Your task to perform on an android device: set the stopwatch Image 0: 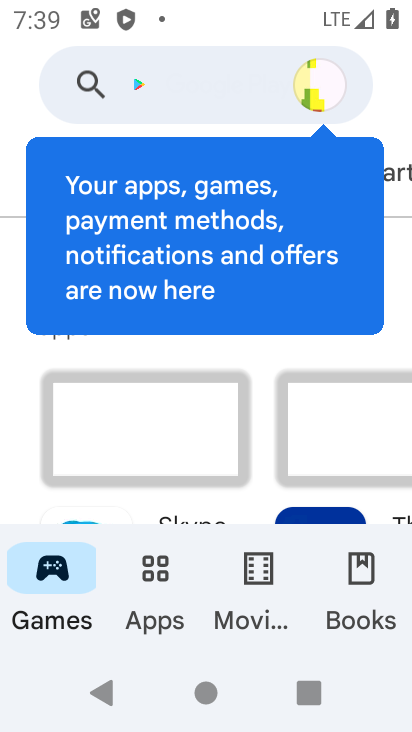
Step 0: press home button
Your task to perform on an android device: set the stopwatch Image 1: 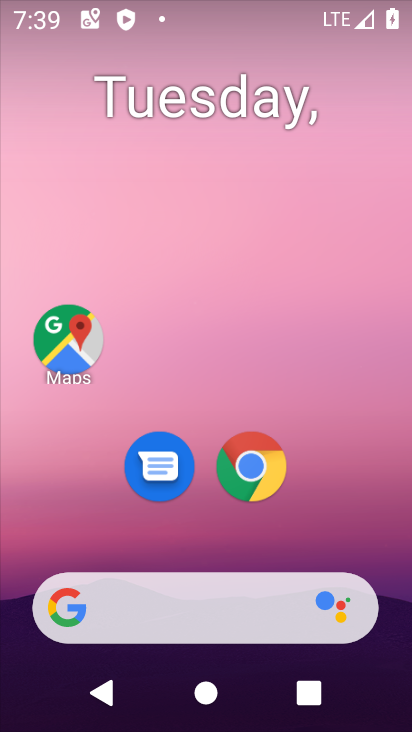
Step 1: drag from (334, 534) to (219, 44)
Your task to perform on an android device: set the stopwatch Image 2: 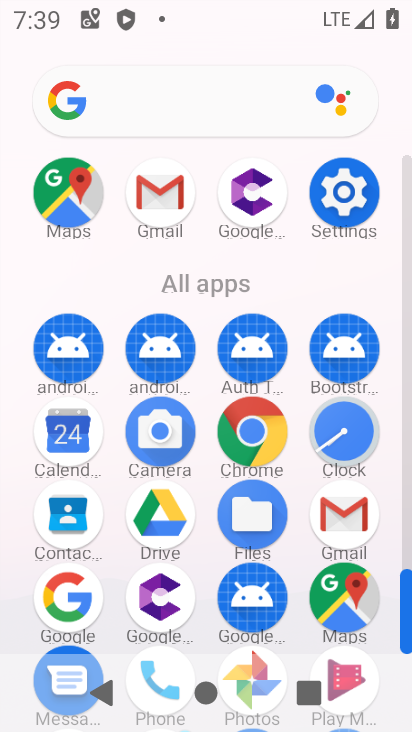
Step 2: click (343, 424)
Your task to perform on an android device: set the stopwatch Image 3: 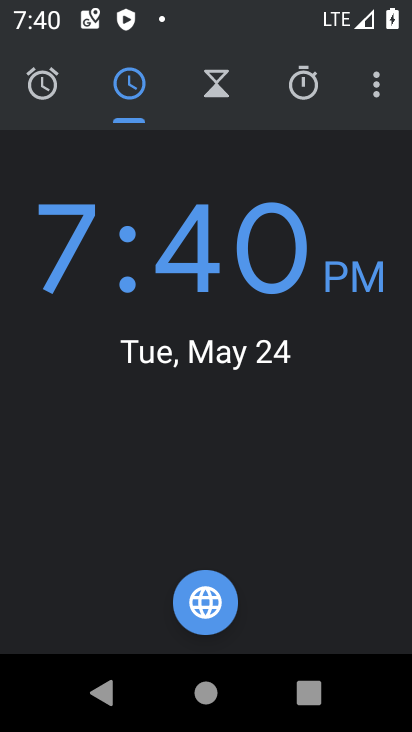
Step 3: click (302, 109)
Your task to perform on an android device: set the stopwatch Image 4: 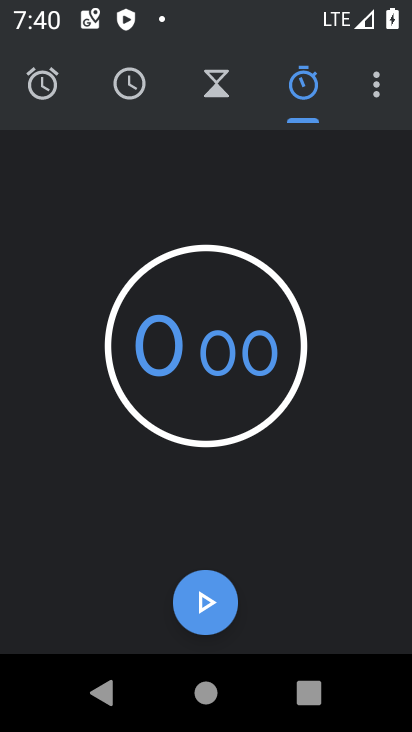
Step 4: task complete